Your task to perform on an android device: turn on showing notifications on the lock screen Image 0: 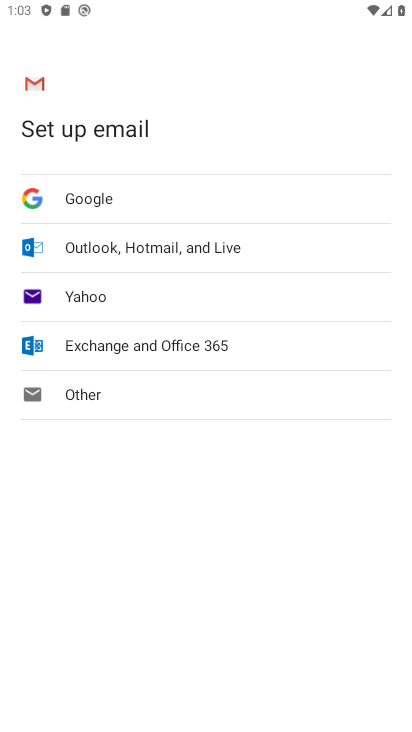
Step 0: press home button
Your task to perform on an android device: turn on showing notifications on the lock screen Image 1: 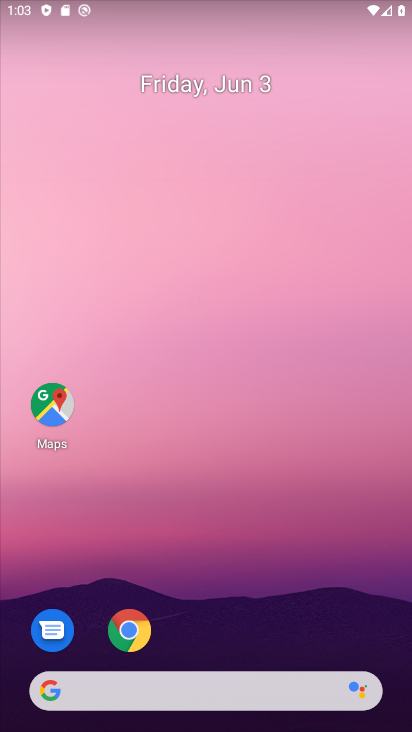
Step 1: drag from (222, 709) to (222, 127)
Your task to perform on an android device: turn on showing notifications on the lock screen Image 2: 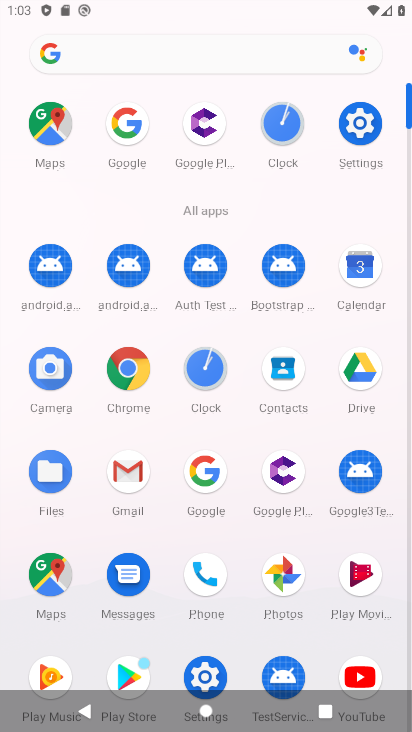
Step 2: click (359, 122)
Your task to perform on an android device: turn on showing notifications on the lock screen Image 3: 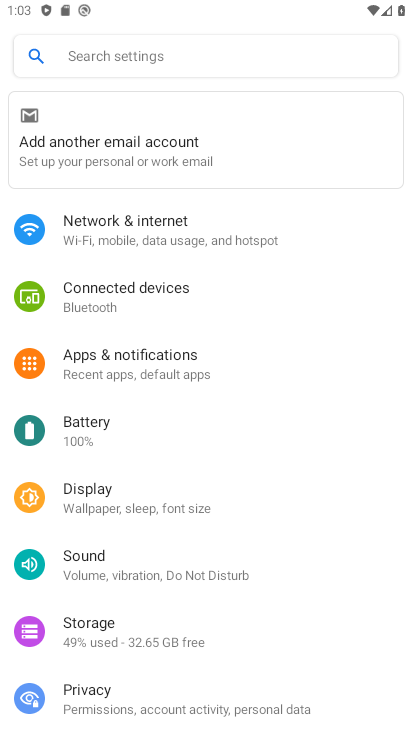
Step 3: click (119, 349)
Your task to perform on an android device: turn on showing notifications on the lock screen Image 4: 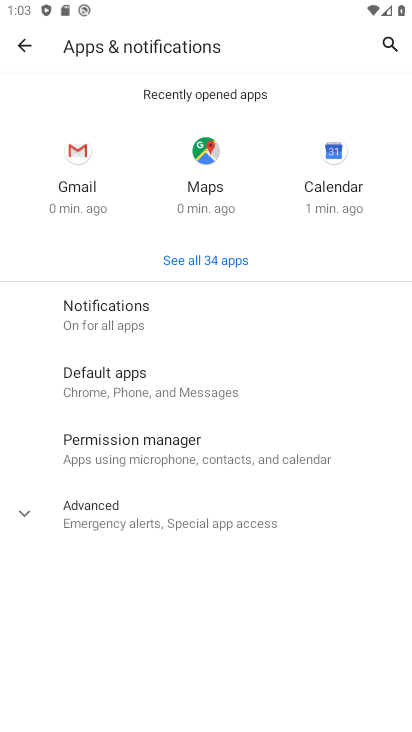
Step 4: click (108, 314)
Your task to perform on an android device: turn on showing notifications on the lock screen Image 5: 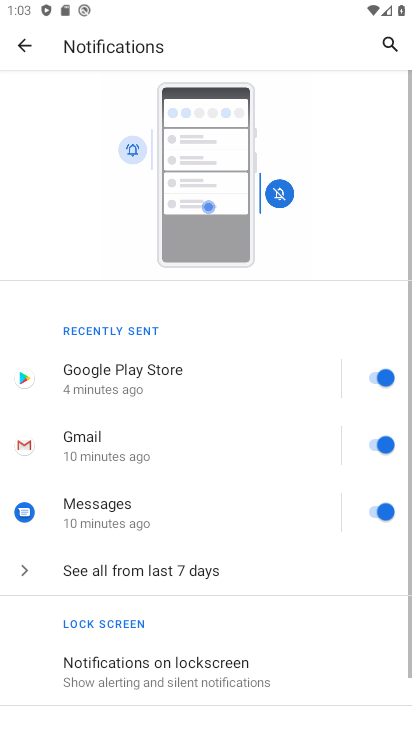
Step 5: task complete